Your task to perform on an android device: clear all cookies in the chrome app Image 0: 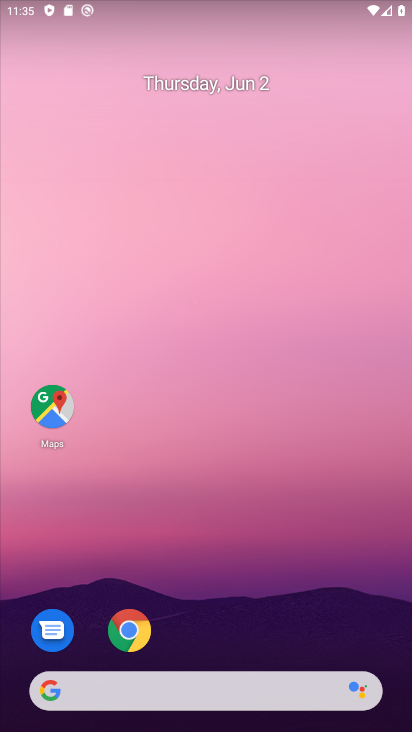
Step 0: click (131, 645)
Your task to perform on an android device: clear all cookies in the chrome app Image 1: 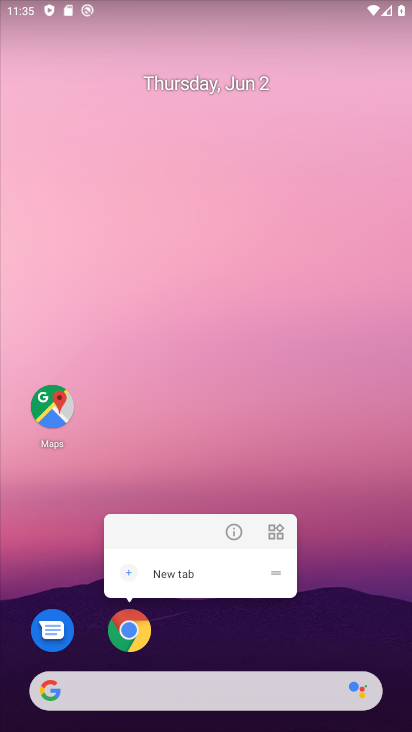
Step 1: click (135, 622)
Your task to perform on an android device: clear all cookies in the chrome app Image 2: 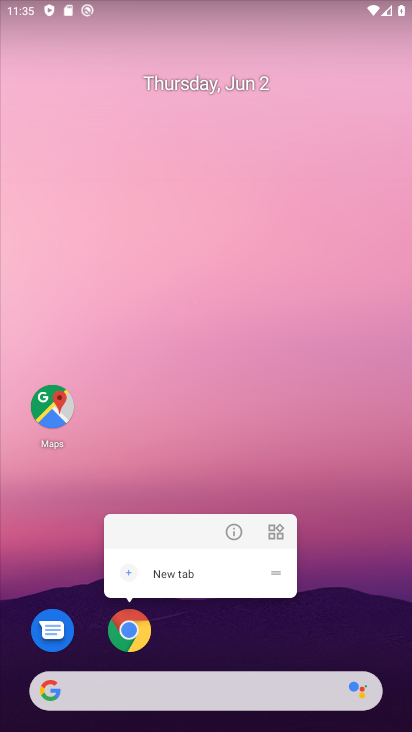
Step 2: click (128, 630)
Your task to perform on an android device: clear all cookies in the chrome app Image 3: 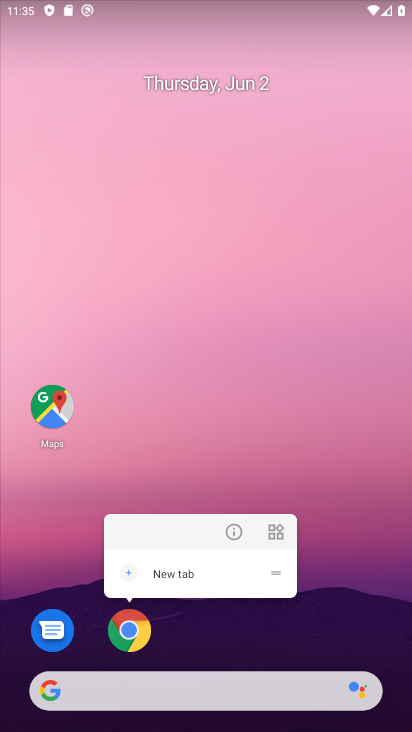
Step 3: click (126, 631)
Your task to perform on an android device: clear all cookies in the chrome app Image 4: 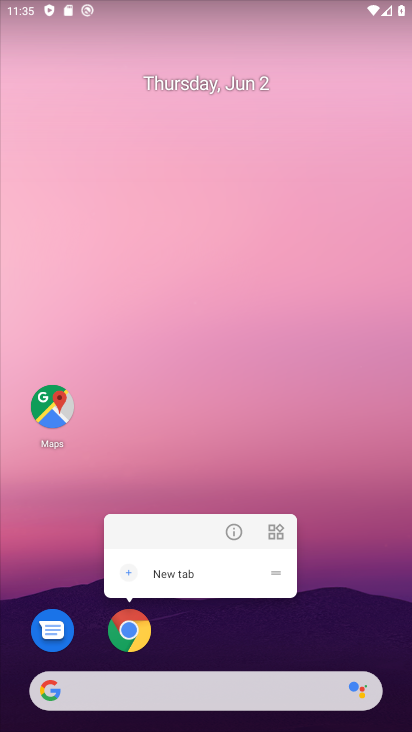
Step 4: click (135, 640)
Your task to perform on an android device: clear all cookies in the chrome app Image 5: 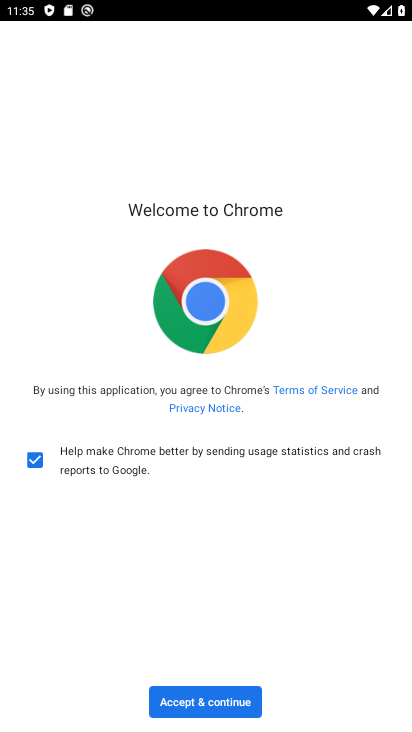
Step 5: click (210, 706)
Your task to perform on an android device: clear all cookies in the chrome app Image 6: 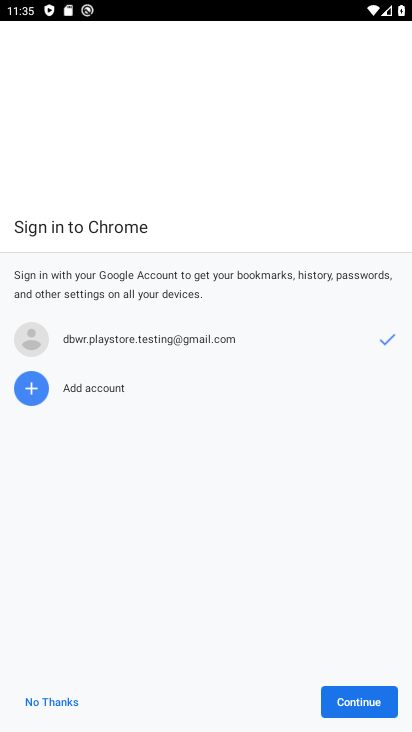
Step 6: click (387, 714)
Your task to perform on an android device: clear all cookies in the chrome app Image 7: 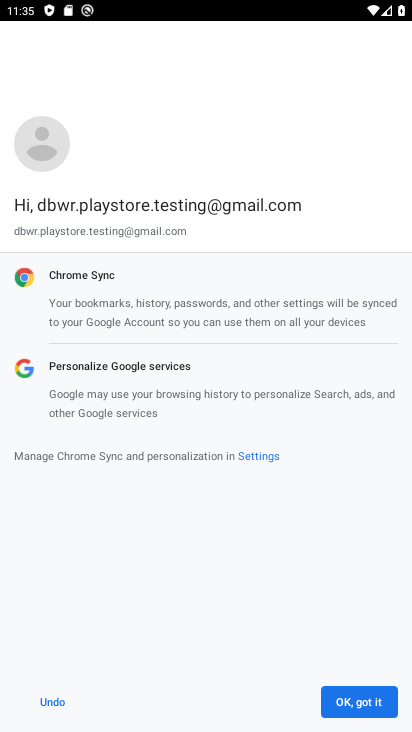
Step 7: click (362, 706)
Your task to perform on an android device: clear all cookies in the chrome app Image 8: 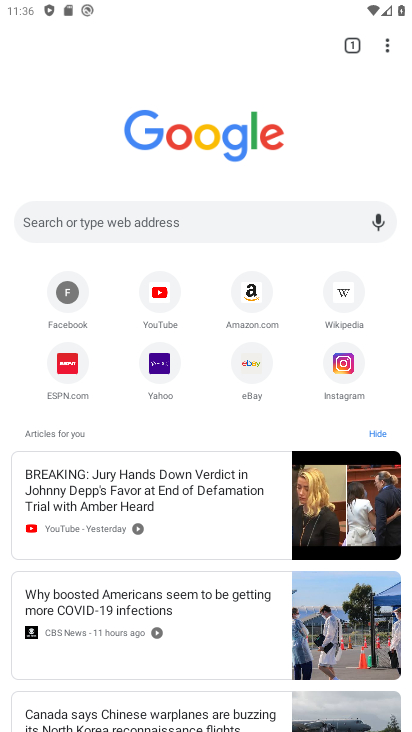
Step 8: drag from (390, 45) to (284, 373)
Your task to perform on an android device: clear all cookies in the chrome app Image 9: 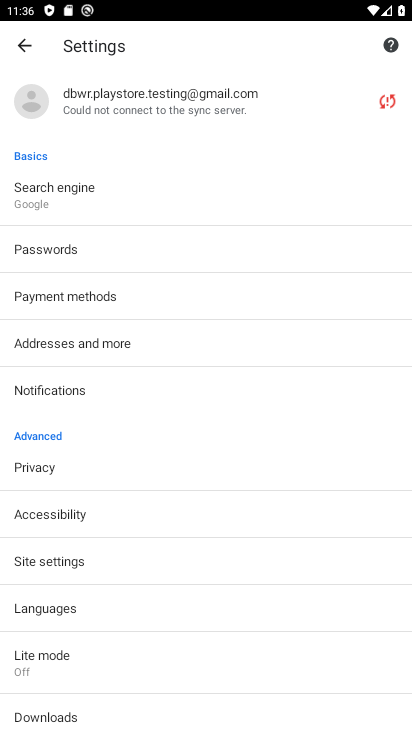
Step 9: click (209, 483)
Your task to perform on an android device: clear all cookies in the chrome app Image 10: 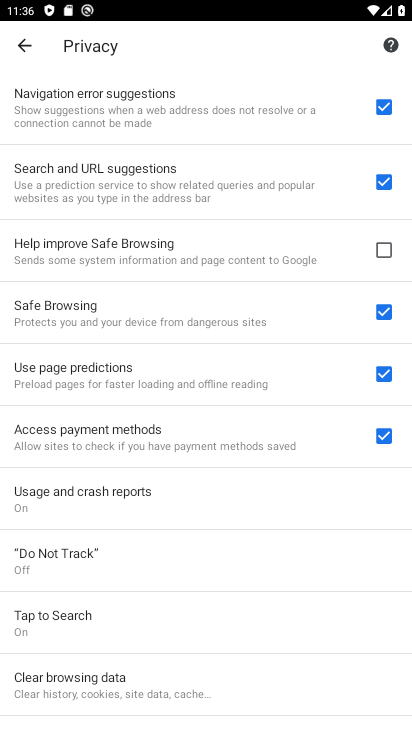
Step 10: drag from (171, 587) to (238, 373)
Your task to perform on an android device: clear all cookies in the chrome app Image 11: 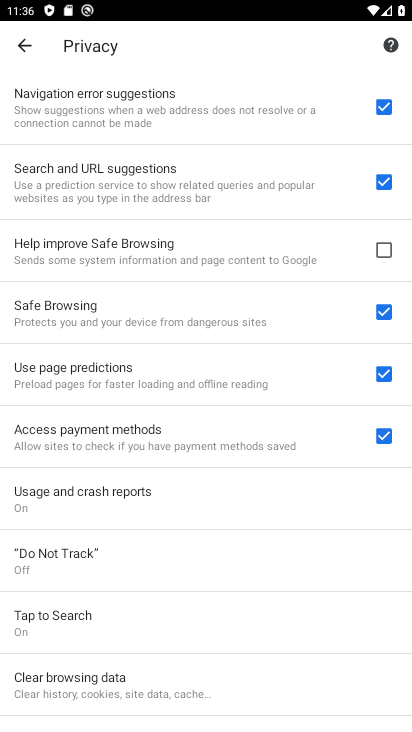
Step 11: click (159, 682)
Your task to perform on an android device: clear all cookies in the chrome app Image 12: 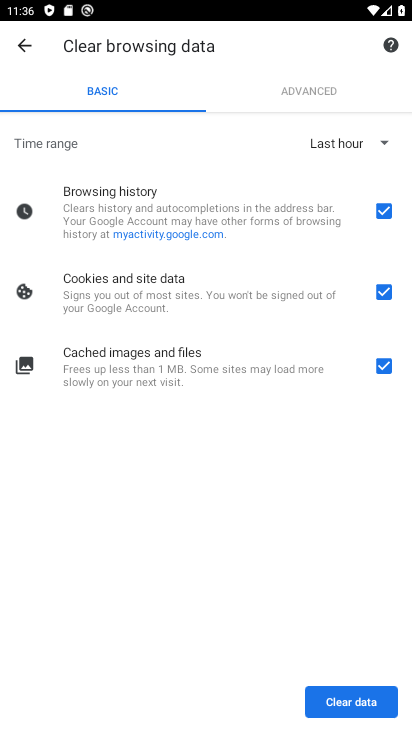
Step 12: click (380, 212)
Your task to perform on an android device: clear all cookies in the chrome app Image 13: 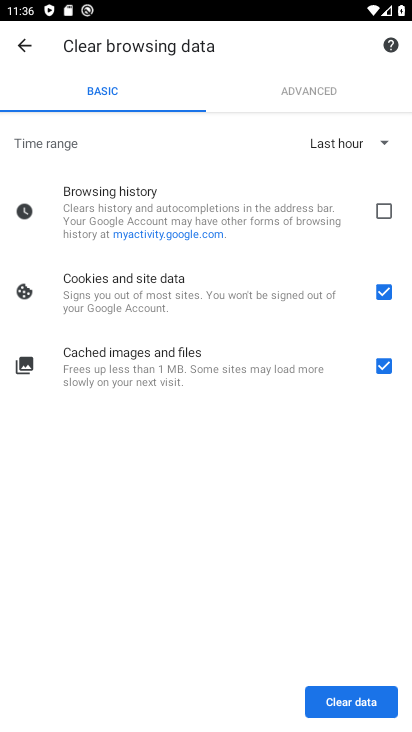
Step 13: click (384, 358)
Your task to perform on an android device: clear all cookies in the chrome app Image 14: 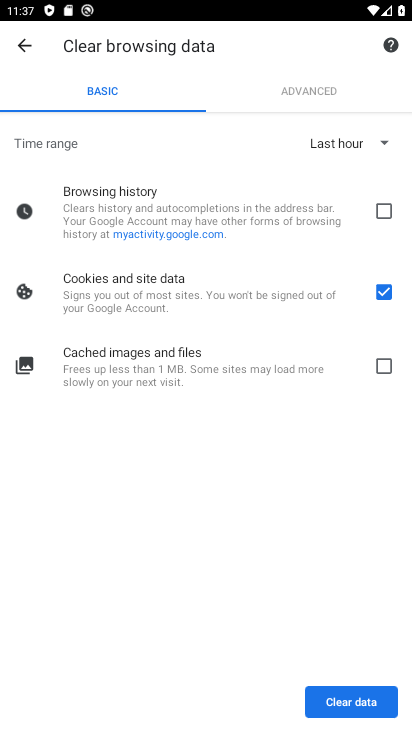
Step 14: click (358, 705)
Your task to perform on an android device: clear all cookies in the chrome app Image 15: 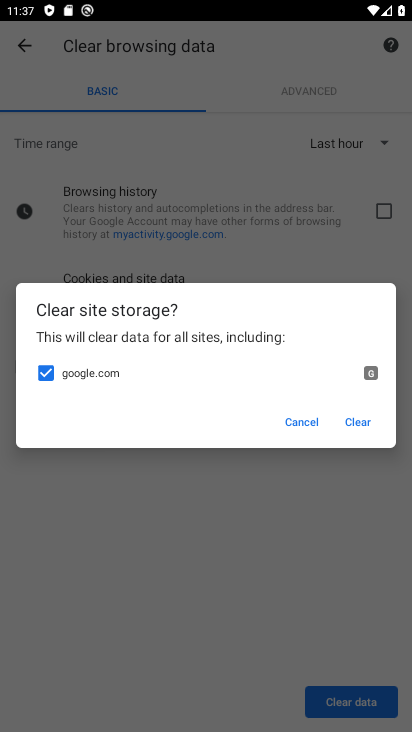
Step 15: click (371, 420)
Your task to perform on an android device: clear all cookies in the chrome app Image 16: 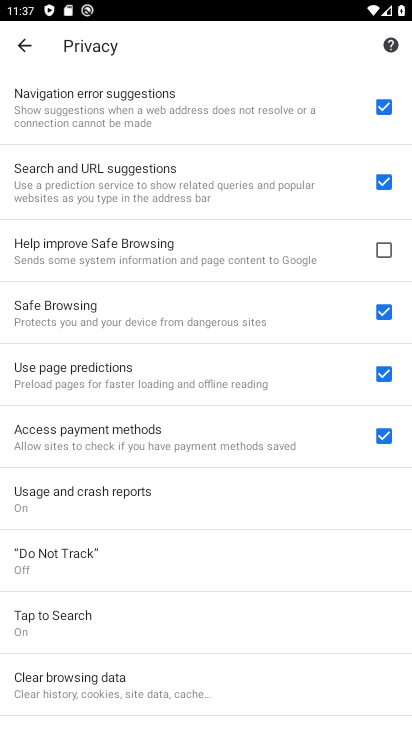
Step 16: drag from (162, 628) to (242, 397)
Your task to perform on an android device: clear all cookies in the chrome app Image 17: 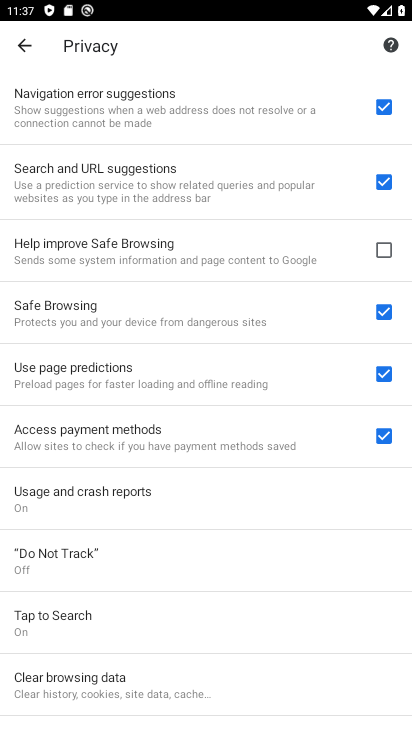
Step 17: click (233, 702)
Your task to perform on an android device: clear all cookies in the chrome app Image 18: 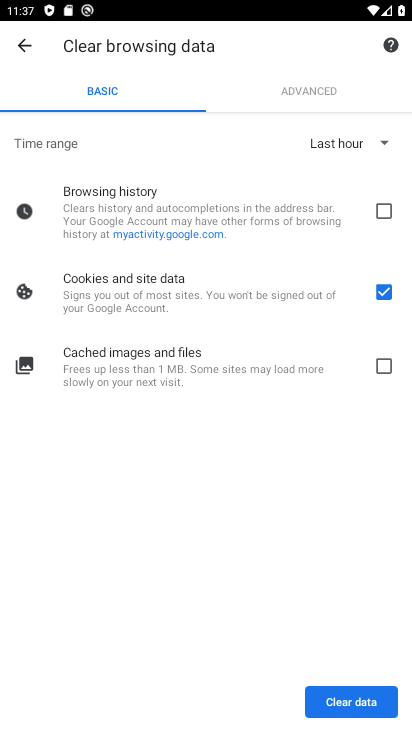
Step 18: click (351, 699)
Your task to perform on an android device: clear all cookies in the chrome app Image 19: 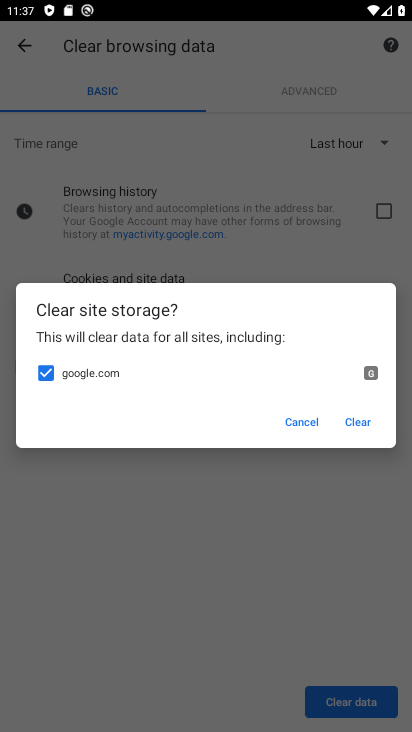
Step 19: click (370, 429)
Your task to perform on an android device: clear all cookies in the chrome app Image 20: 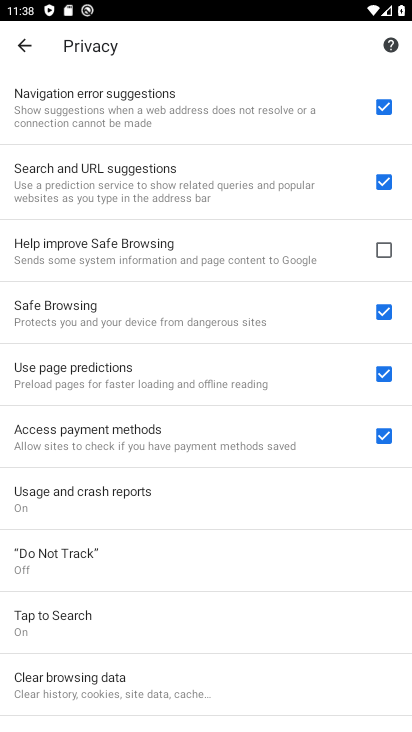
Step 20: task complete